Your task to perform on an android device: check storage Image 0: 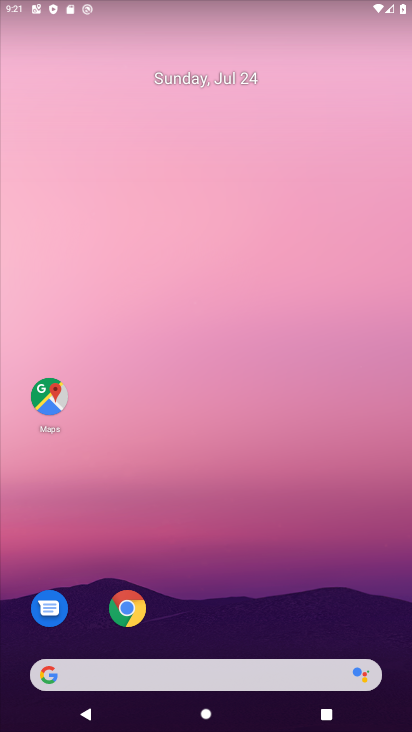
Step 0: press home button
Your task to perform on an android device: check storage Image 1: 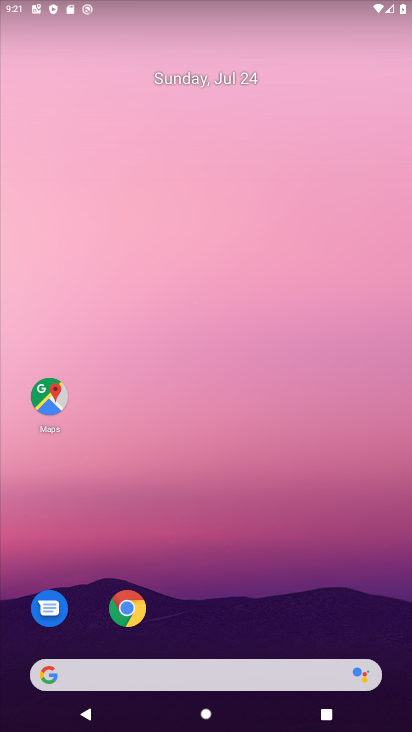
Step 1: drag from (187, 292) to (195, 117)
Your task to perform on an android device: check storage Image 2: 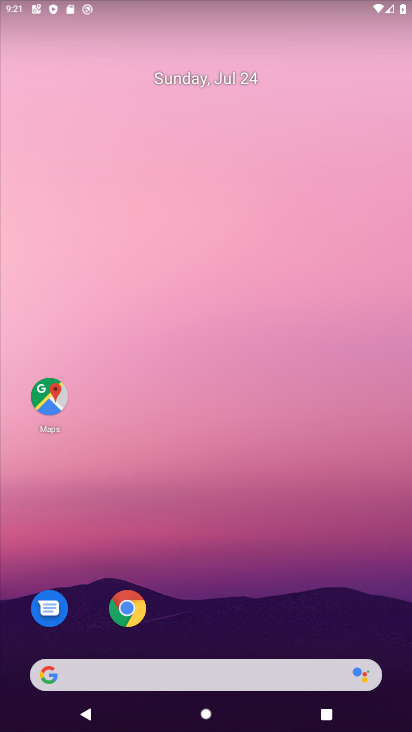
Step 2: drag from (241, 582) to (297, 3)
Your task to perform on an android device: check storage Image 3: 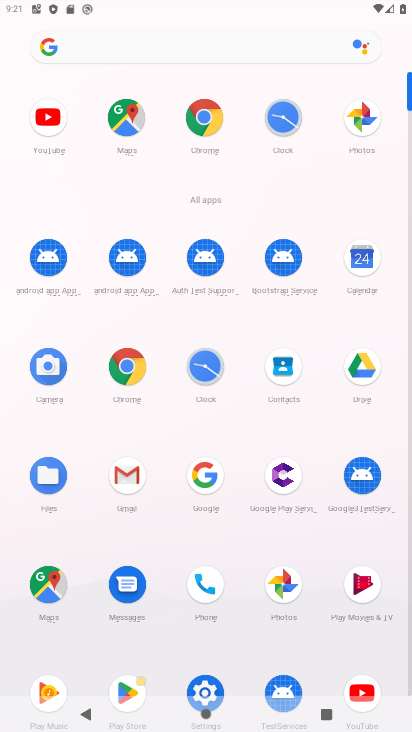
Step 3: click (198, 686)
Your task to perform on an android device: check storage Image 4: 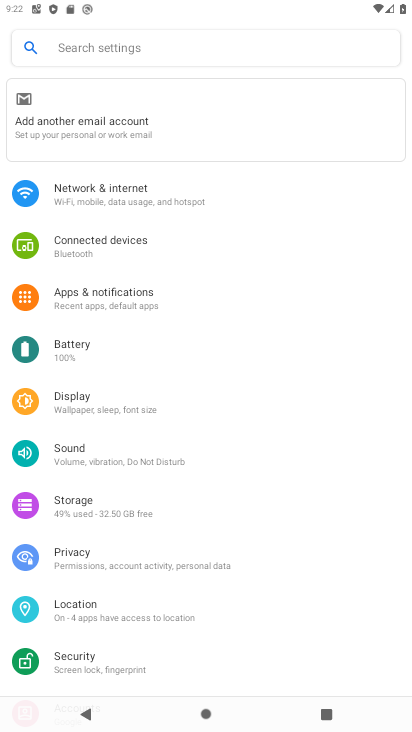
Step 4: click (82, 501)
Your task to perform on an android device: check storage Image 5: 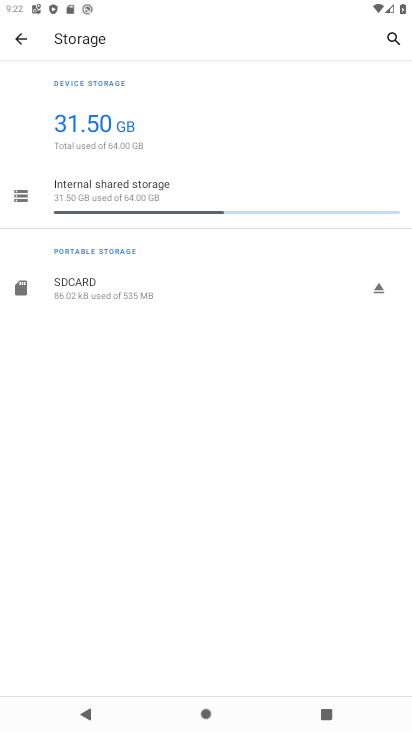
Step 5: task complete